Your task to perform on an android device: choose inbox layout in the gmail app Image 0: 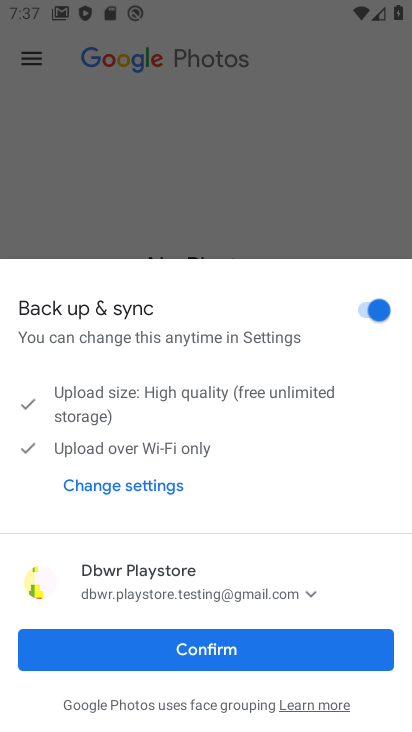
Step 0: press home button
Your task to perform on an android device: choose inbox layout in the gmail app Image 1: 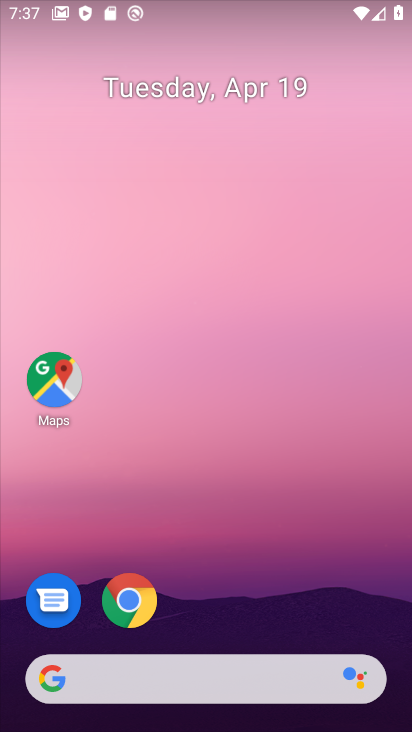
Step 1: drag from (241, 614) to (247, 102)
Your task to perform on an android device: choose inbox layout in the gmail app Image 2: 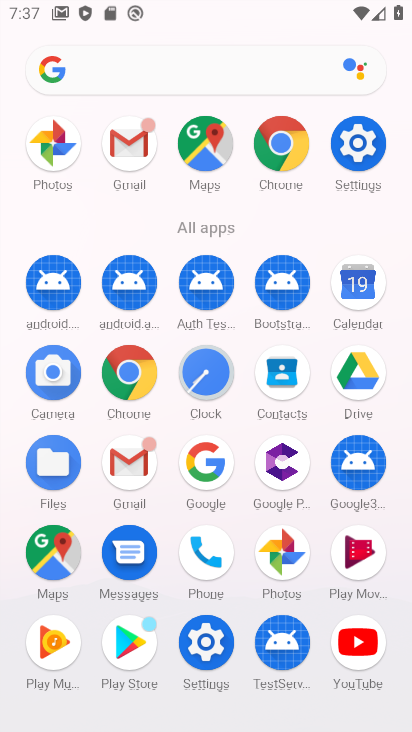
Step 2: click (148, 463)
Your task to perform on an android device: choose inbox layout in the gmail app Image 3: 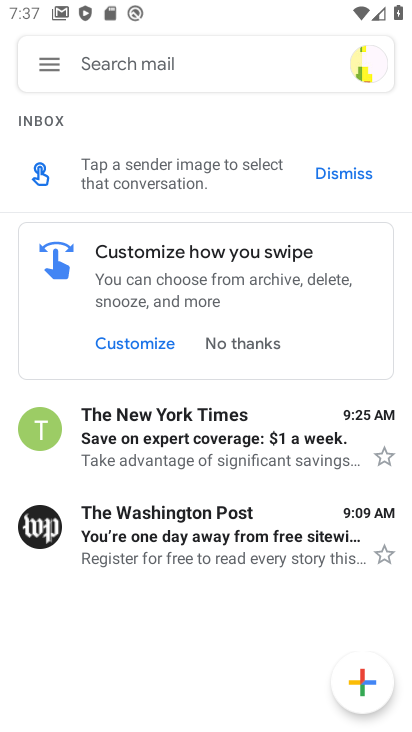
Step 3: click (233, 442)
Your task to perform on an android device: choose inbox layout in the gmail app Image 4: 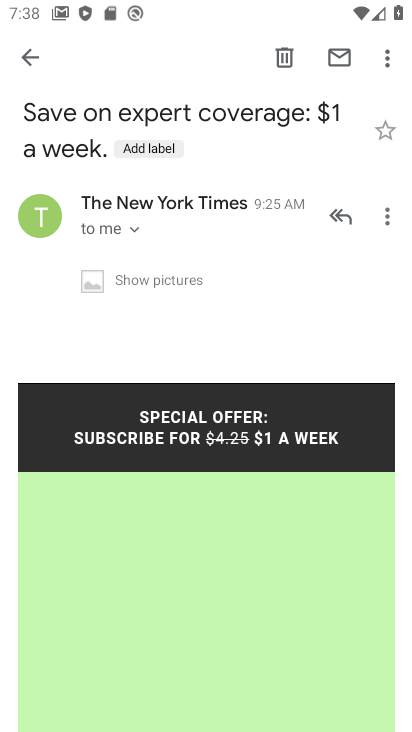
Step 4: task complete